Your task to perform on an android device: Go to Yahoo.com Image 0: 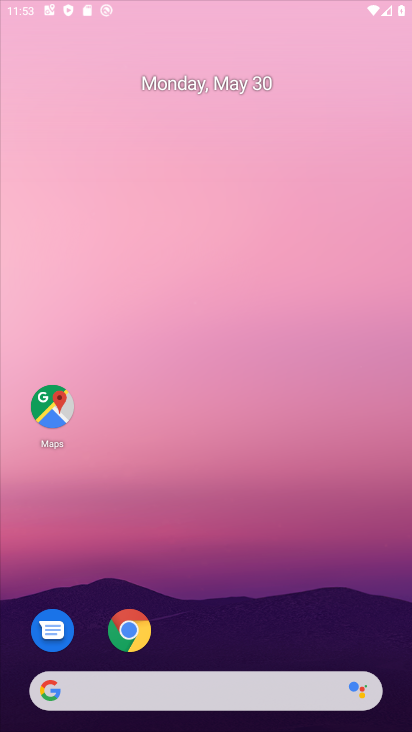
Step 0: press home button
Your task to perform on an android device: Go to Yahoo.com Image 1: 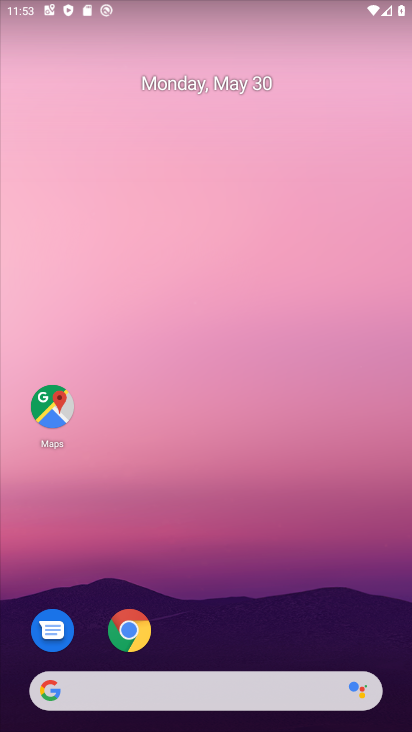
Step 1: click (139, 629)
Your task to perform on an android device: Go to Yahoo.com Image 2: 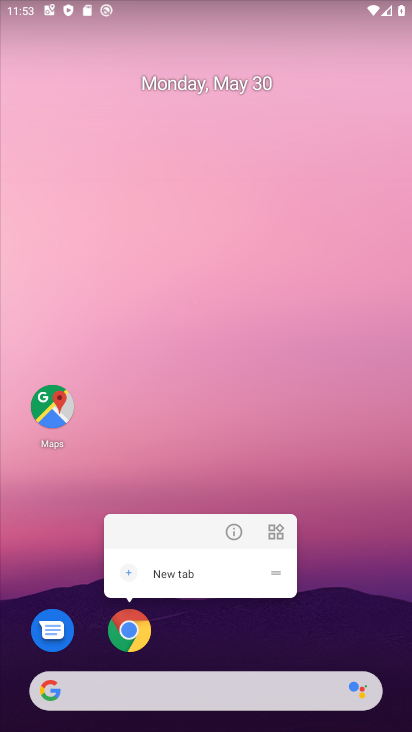
Step 2: click (132, 631)
Your task to perform on an android device: Go to Yahoo.com Image 3: 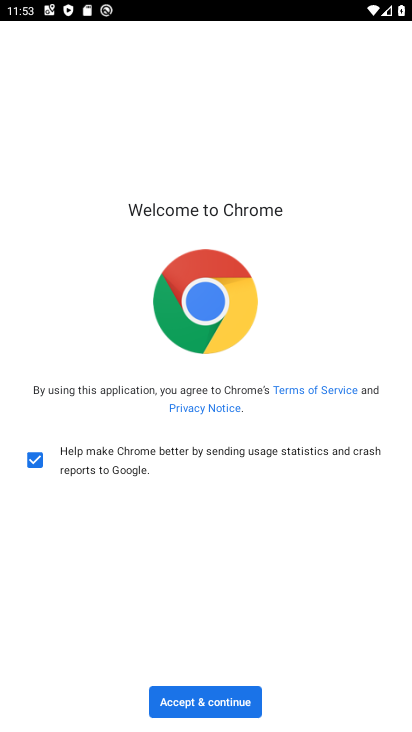
Step 3: click (225, 706)
Your task to perform on an android device: Go to Yahoo.com Image 4: 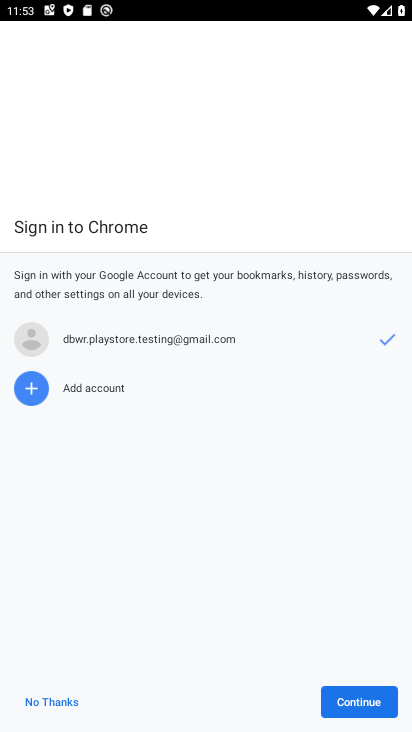
Step 4: click (375, 697)
Your task to perform on an android device: Go to Yahoo.com Image 5: 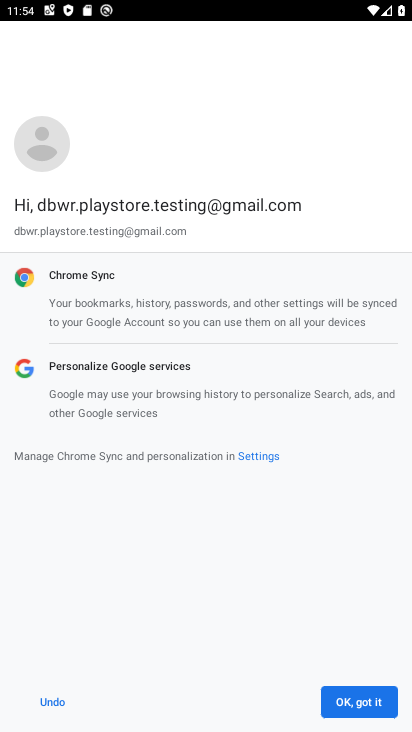
Step 5: click (364, 708)
Your task to perform on an android device: Go to Yahoo.com Image 6: 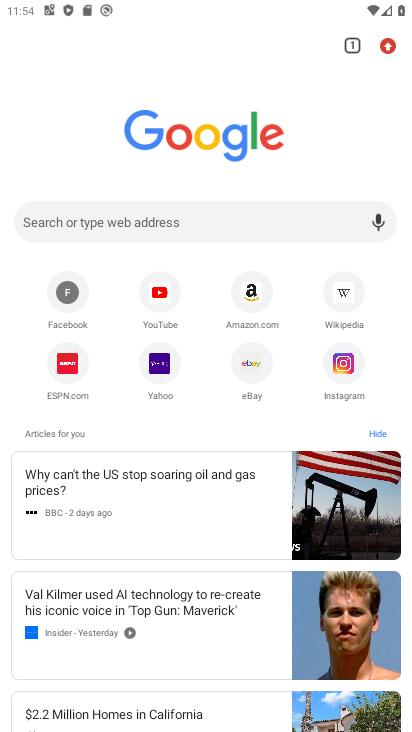
Step 6: click (157, 361)
Your task to perform on an android device: Go to Yahoo.com Image 7: 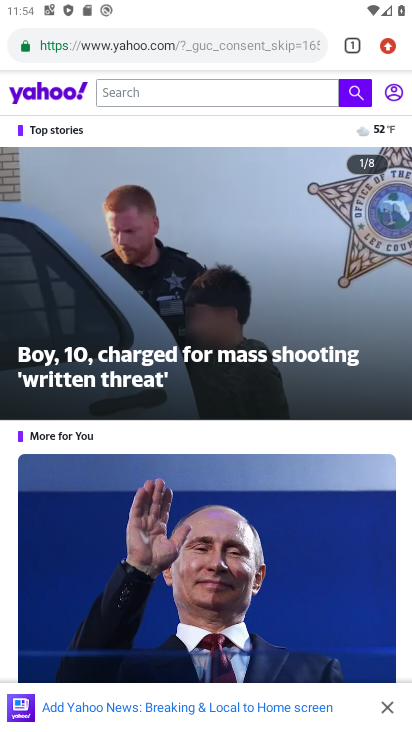
Step 7: task complete